Your task to perform on an android device: Open Google Image 0: 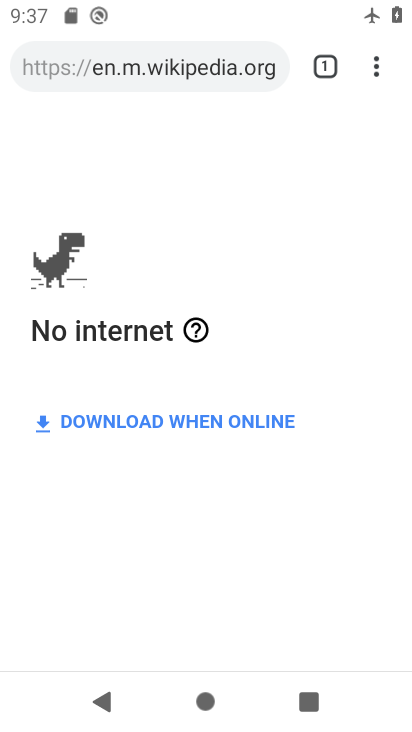
Step 0: press home button
Your task to perform on an android device: Open Google Image 1: 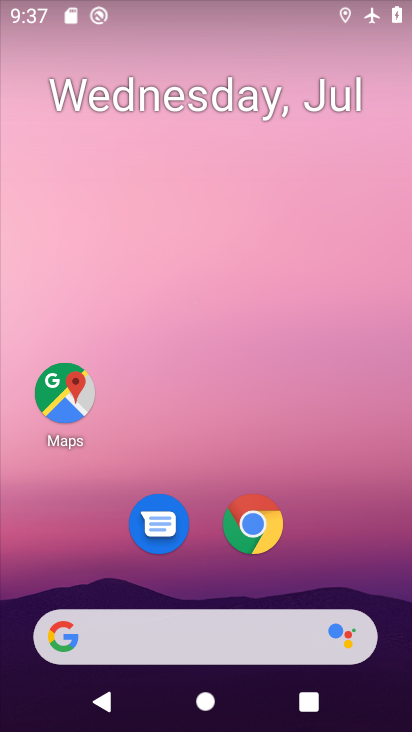
Step 1: click (178, 635)
Your task to perform on an android device: Open Google Image 2: 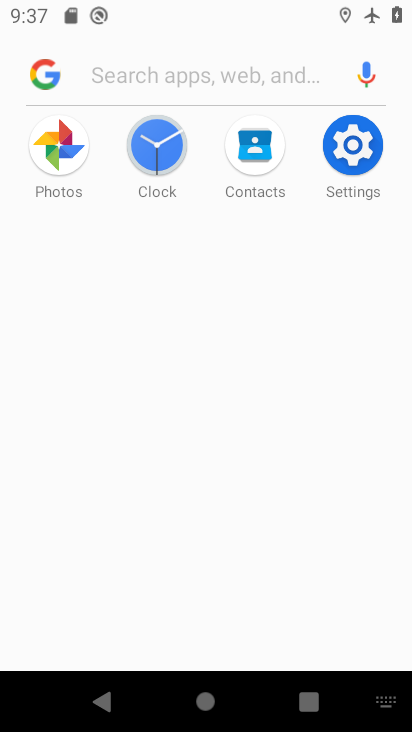
Step 2: click (45, 73)
Your task to perform on an android device: Open Google Image 3: 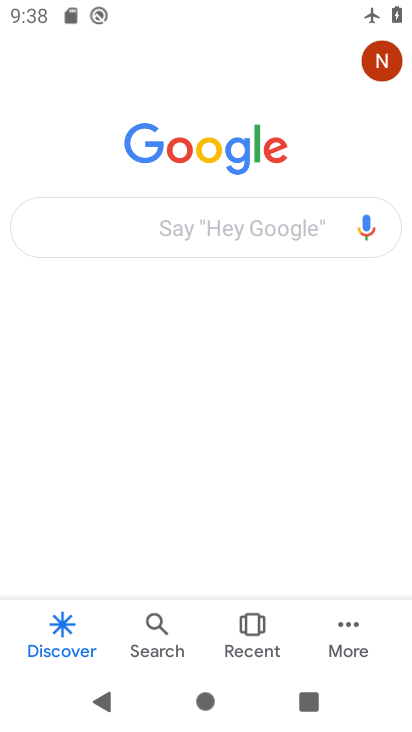
Step 3: click (253, 142)
Your task to perform on an android device: Open Google Image 4: 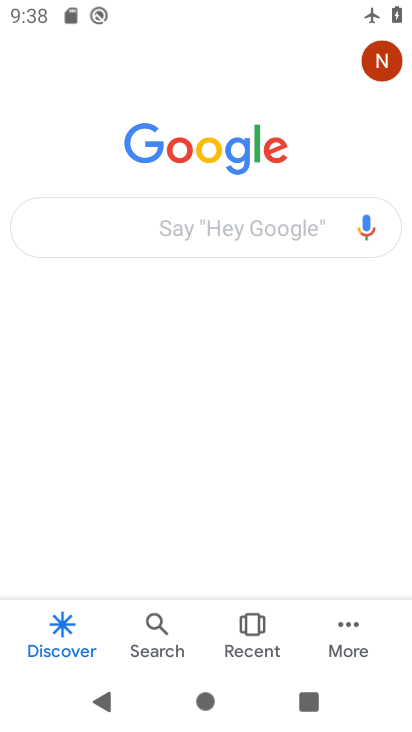
Step 4: task complete